Your task to perform on an android device: make emails show in primary in the gmail app Image 0: 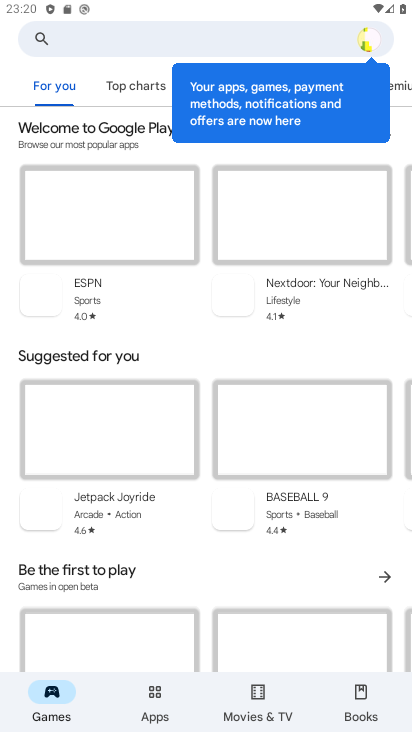
Step 0: press home button
Your task to perform on an android device: make emails show in primary in the gmail app Image 1: 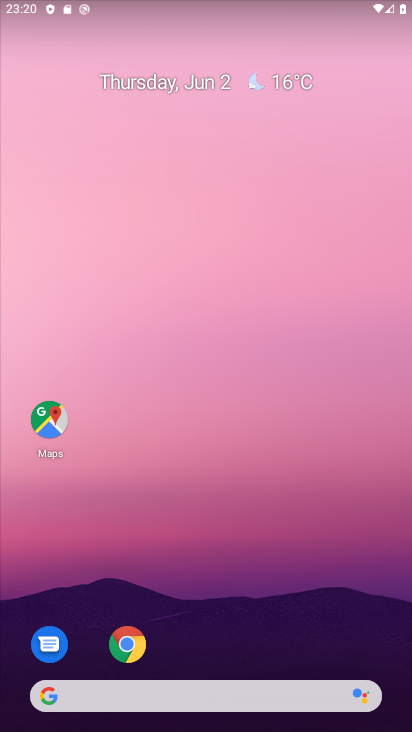
Step 1: drag from (237, 653) to (288, 284)
Your task to perform on an android device: make emails show in primary in the gmail app Image 2: 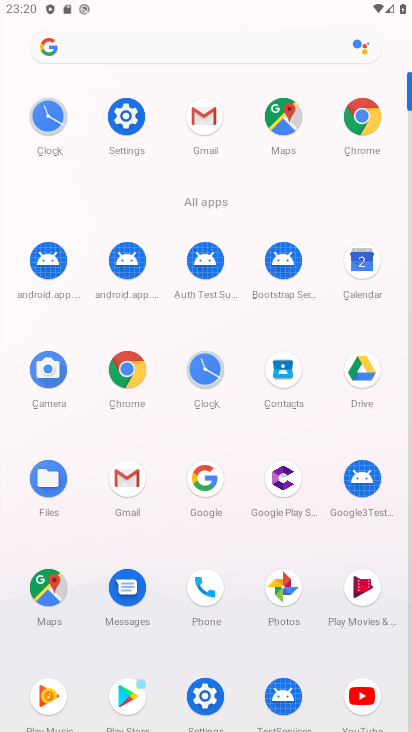
Step 2: click (208, 115)
Your task to perform on an android device: make emails show in primary in the gmail app Image 3: 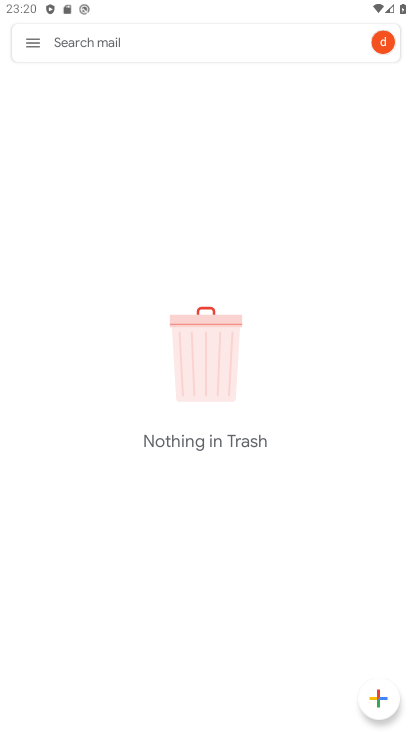
Step 3: click (22, 47)
Your task to perform on an android device: make emails show in primary in the gmail app Image 4: 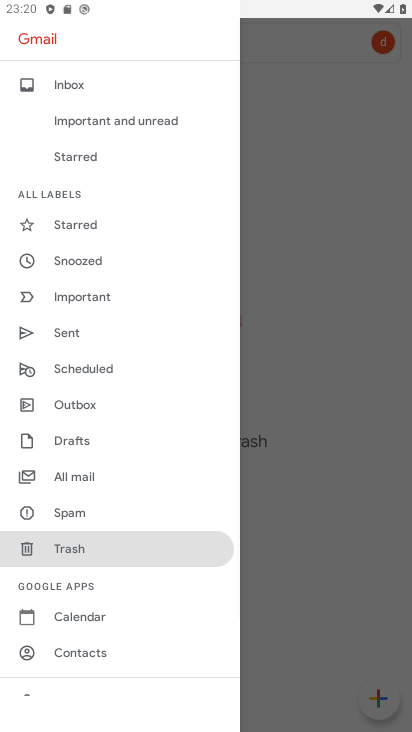
Step 4: drag from (102, 640) to (178, 202)
Your task to perform on an android device: make emails show in primary in the gmail app Image 5: 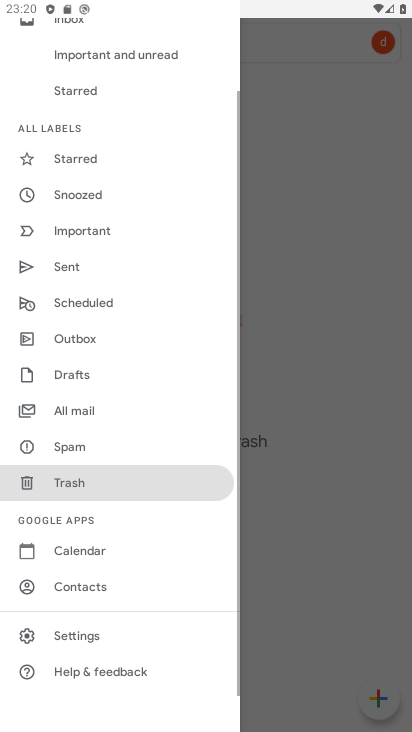
Step 5: click (77, 635)
Your task to perform on an android device: make emails show in primary in the gmail app Image 6: 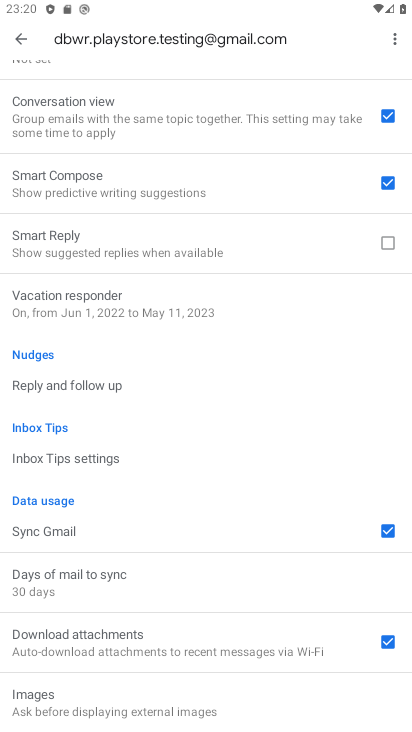
Step 6: drag from (94, 230) to (69, 596)
Your task to perform on an android device: make emails show in primary in the gmail app Image 7: 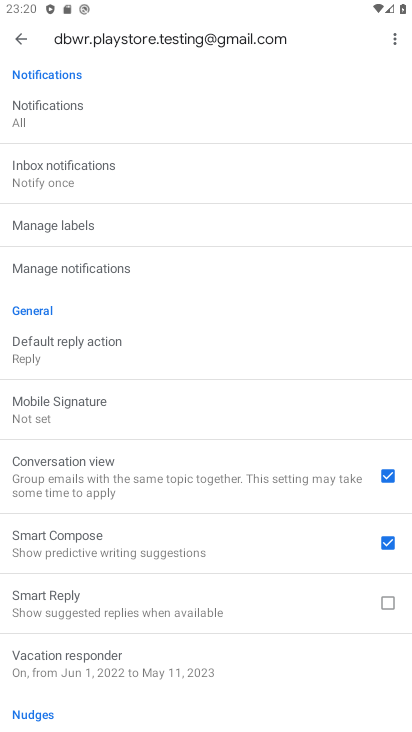
Step 7: drag from (100, 124) to (95, 558)
Your task to perform on an android device: make emails show in primary in the gmail app Image 8: 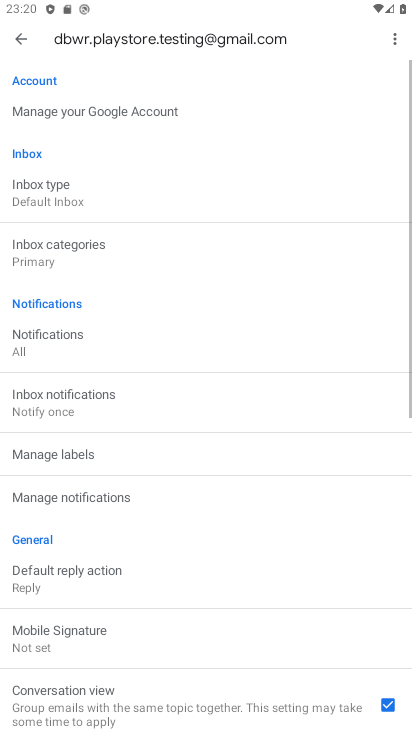
Step 8: click (83, 195)
Your task to perform on an android device: make emails show in primary in the gmail app Image 9: 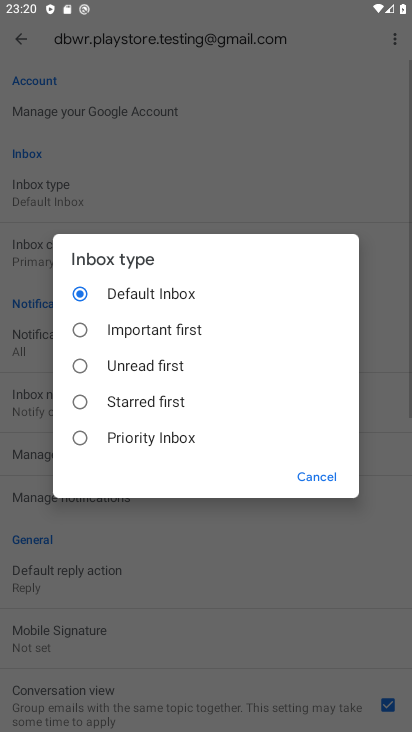
Step 9: click (153, 295)
Your task to perform on an android device: make emails show in primary in the gmail app Image 10: 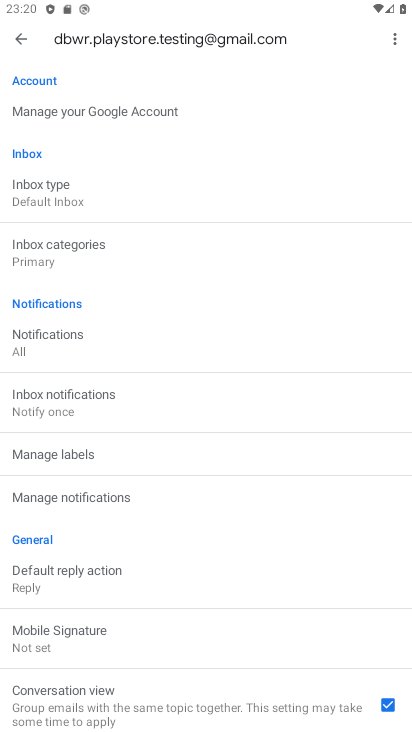
Step 10: click (20, 33)
Your task to perform on an android device: make emails show in primary in the gmail app Image 11: 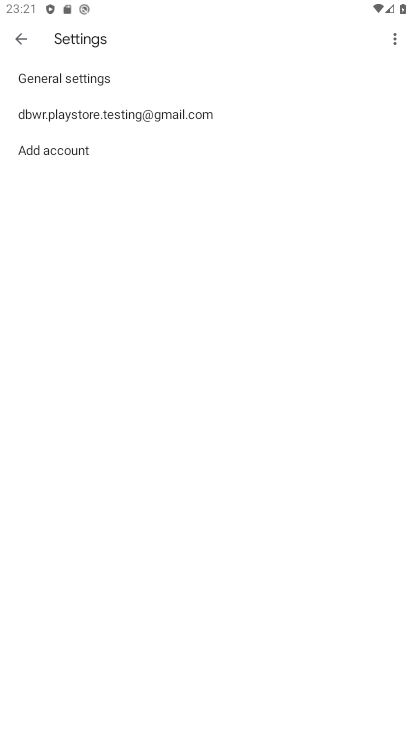
Step 11: click (9, 41)
Your task to perform on an android device: make emails show in primary in the gmail app Image 12: 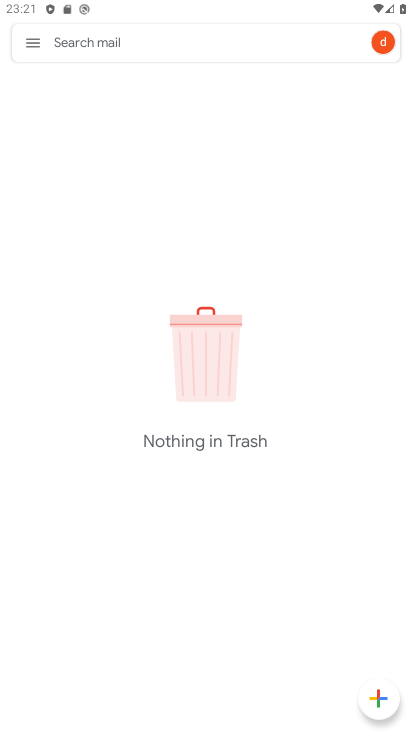
Step 12: click (29, 45)
Your task to perform on an android device: make emails show in primary in the gmail app Image 13: 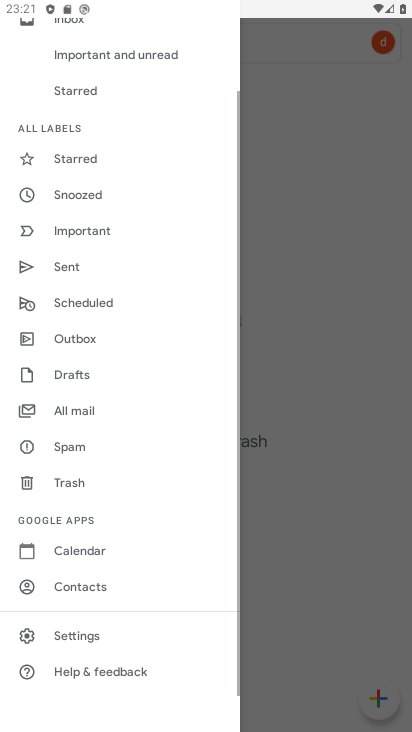
Step 13: task complete